Your task to perform on an android device: Open my contact list Image 0: 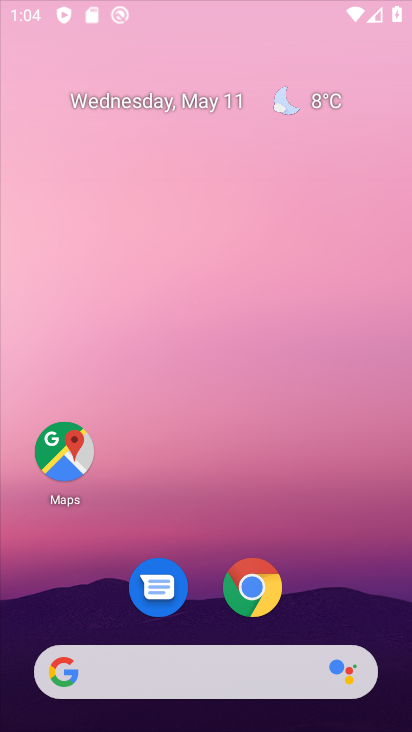
Step 0: drag from (340, 595) to (354, 94)
Your task to perform on an android device: Open my contact list Image 1: 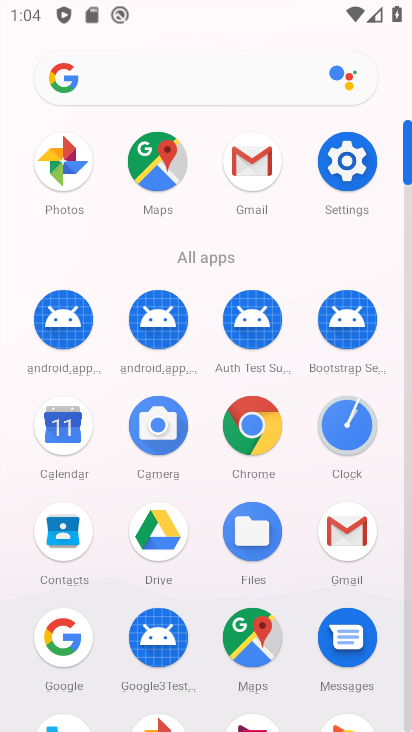
Step 1: click (59, 526)
Your task to perform on an android device: Open my contact list Image 2: 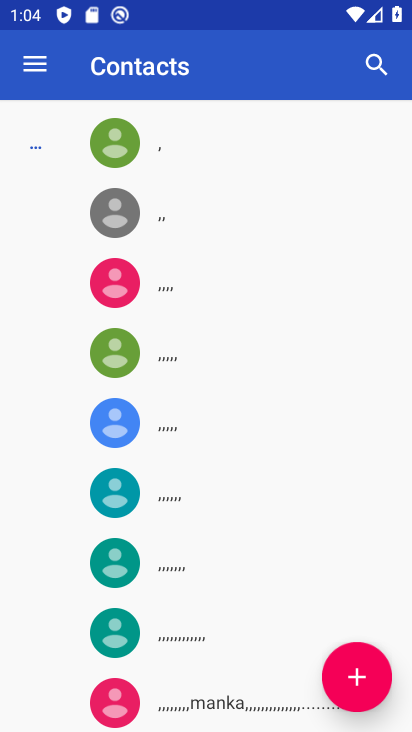
Step 2: task complete